Your task to perform on an android device: What's on my calendar today? Image 0: 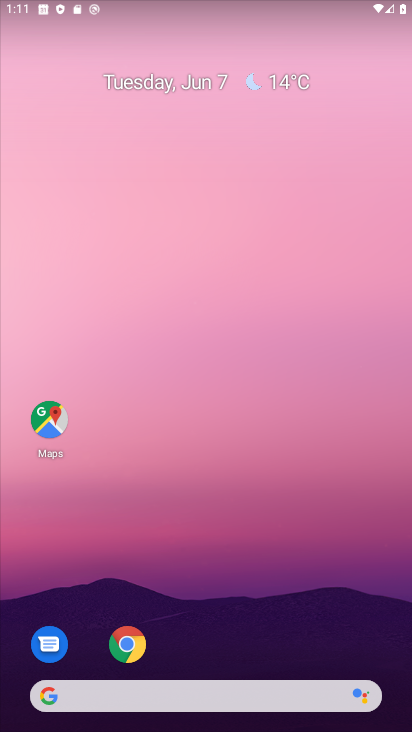
Step 0: drag from (151, 553) to (138, 141)
Your task to perform on an android device: What's on my calendar today? Image 1: 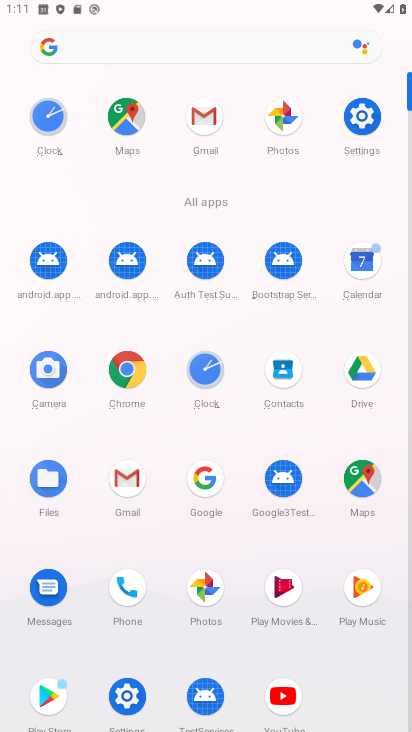
Step 1: click (367, 267)
Your task to perform on an android device: What's on my calendar today? Image 2: 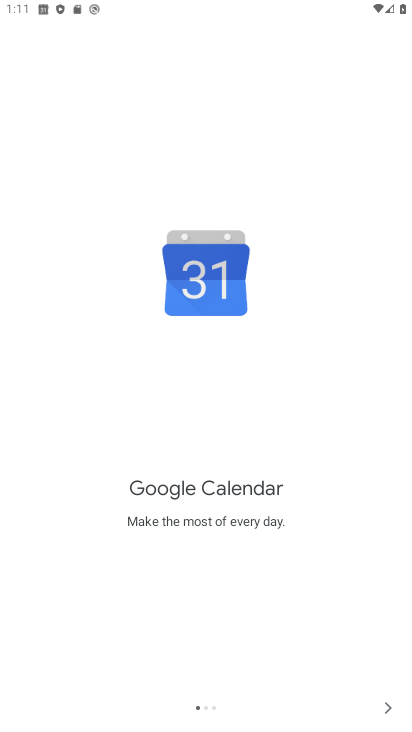
Step 2: click (383, 710)
Your task to perform on an android device: What's on my calendar today? Image 3: 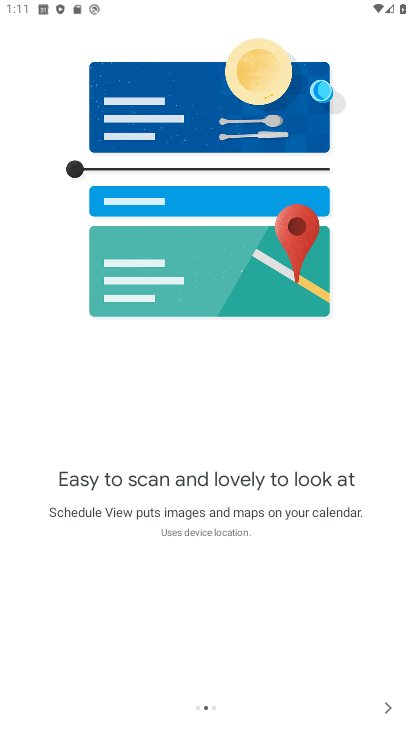
Step 3: click (382, 705)
Your task to perform on an android device: What's on my calendar today? Image 4: 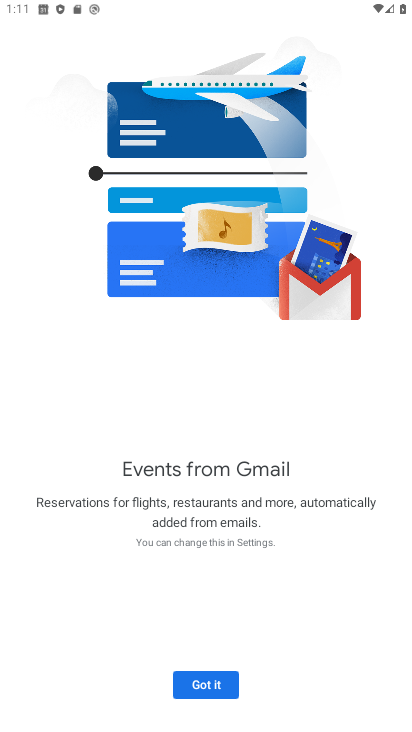
Step 4: click (238, 691)
Your task to perform on an android device: What's on my calendar today? Image 5: 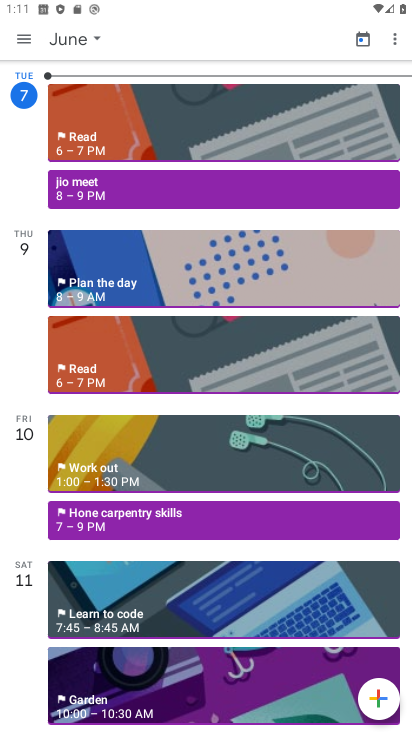
Step 5: click (103, 129)
Your task to perform on an android device: What's on my calendar today? Image 6: 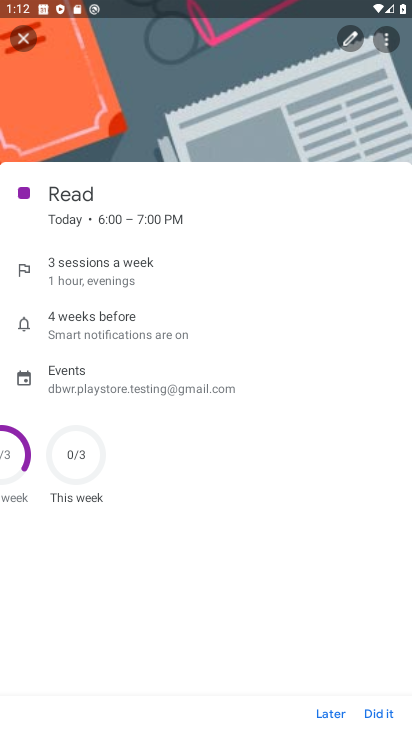
Step 6: task complete